Your task to perform on an android device: Open notification settings Image 0: 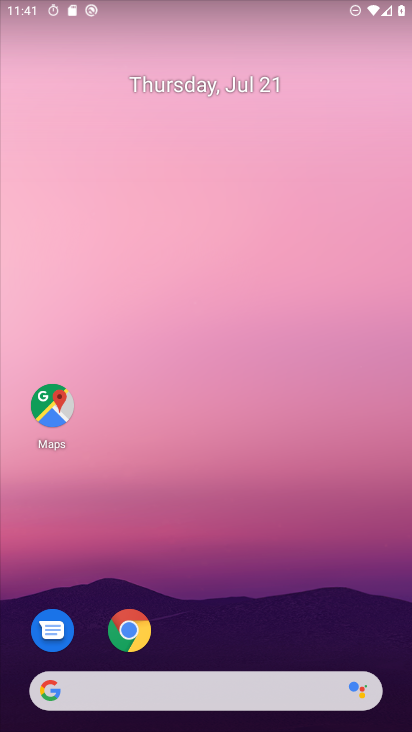
Step 0: press home button
Your task to perform on an android device: Open notification settings Image 1: 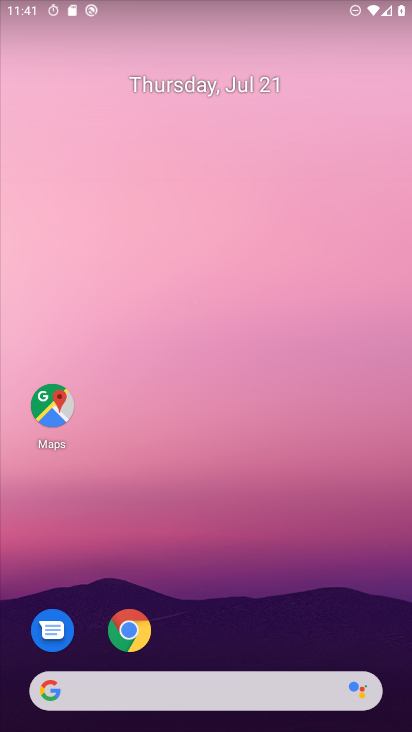
Step 1: drag from (293, 632) to (270, 133)
Your task to perform on an android device: Open notification settings Image 2: 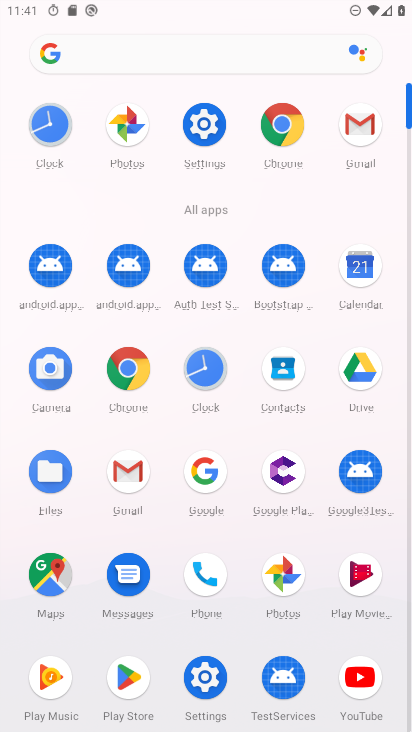
Step 2: click (207, 128)
Your task to perform on an android device: Open notification settings Image 3: 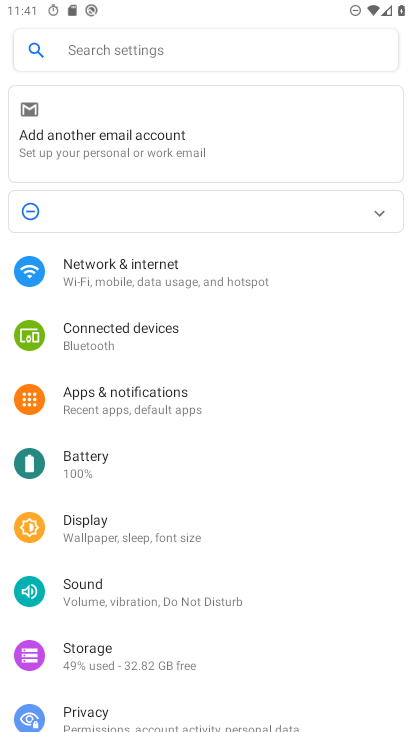
Step 3: click (119, 395)
Your task to perform on an android device: Open notification settings Image 4: 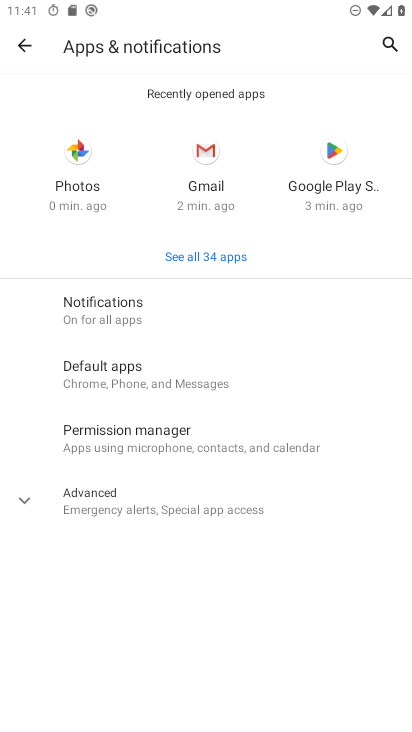
Step 4: task complete